Your task to perform on an android device: Open Chrome and go to settings Image 0: 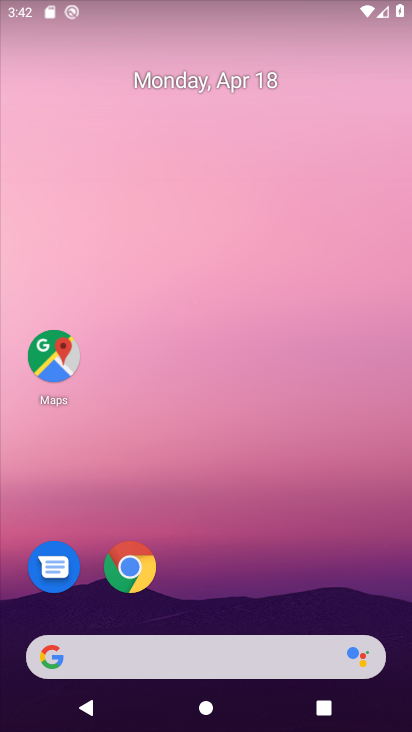
Step 0: drag from (224, 579) to (278, 140)
Your task to perform on an android device: Open Chrome and go to settings Image 1: 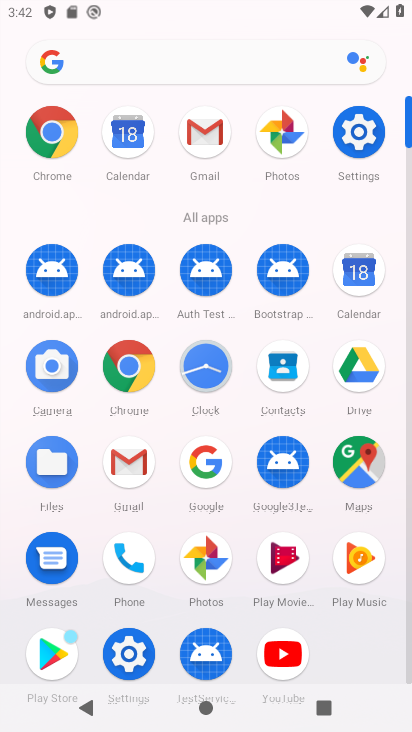
Step 1: click (53, 137)
Your task to perform on an android device: Open Chrome and go to settings Image 2: 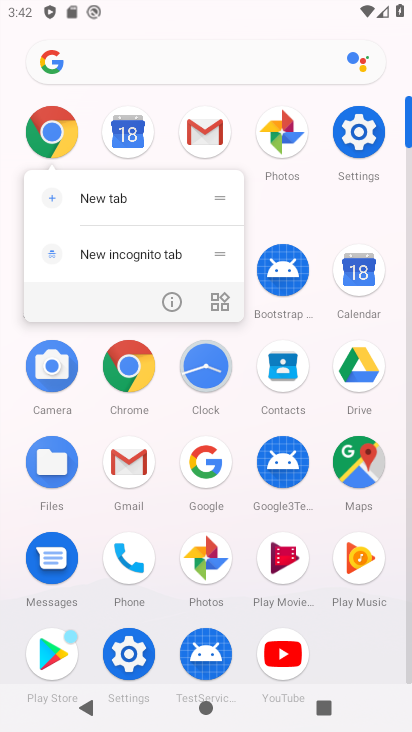
Step 2: click (53, 137)
Your task to perform on an android device: Open Chrome and go to settings Image 3: 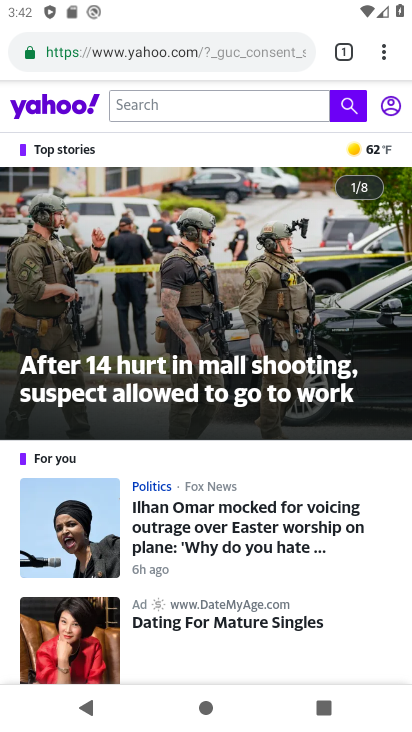
Step 3: task complete